Your task to perform on an android device: check data usage Image 0: 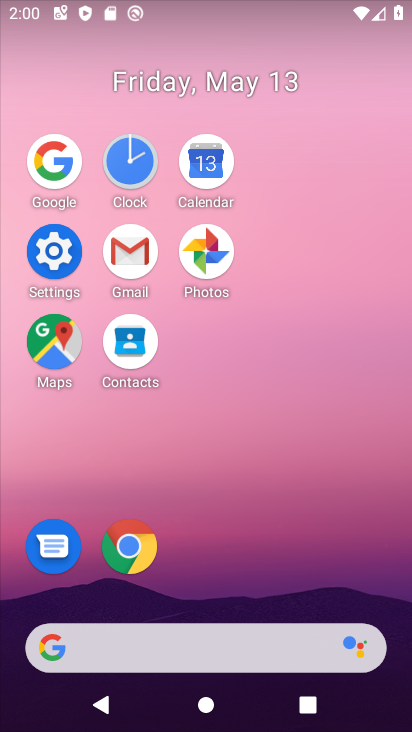
Step 0: click (136, 542)
Your task to perform on an android device: check data usage Image 1: 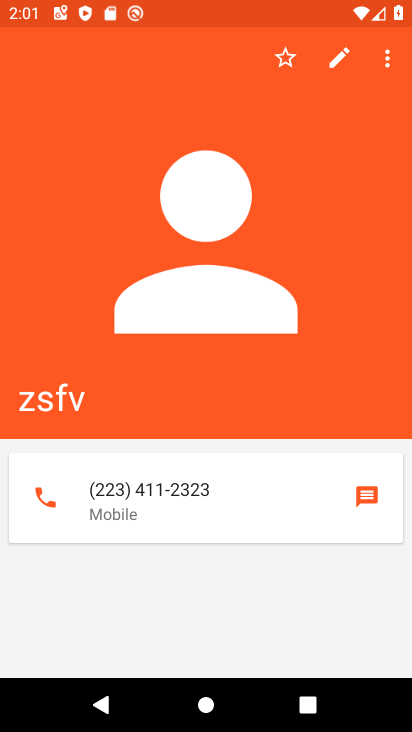
Step 1: press home button
Your task to perform on an android device: check data usage Image 2: 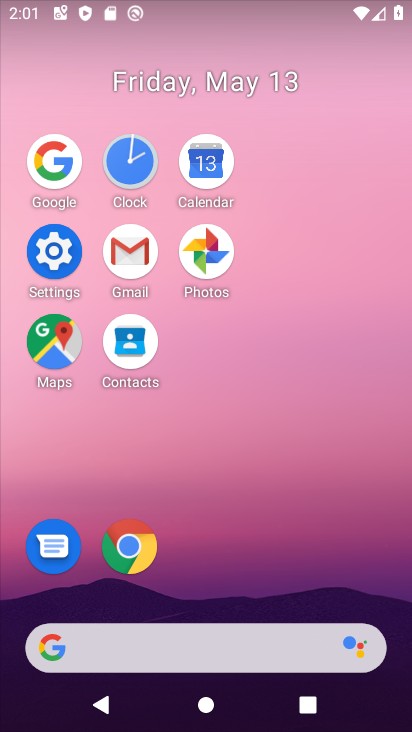
Step 2: click (40, 245)
Your task to perform on an android device: check data usage Image 3: 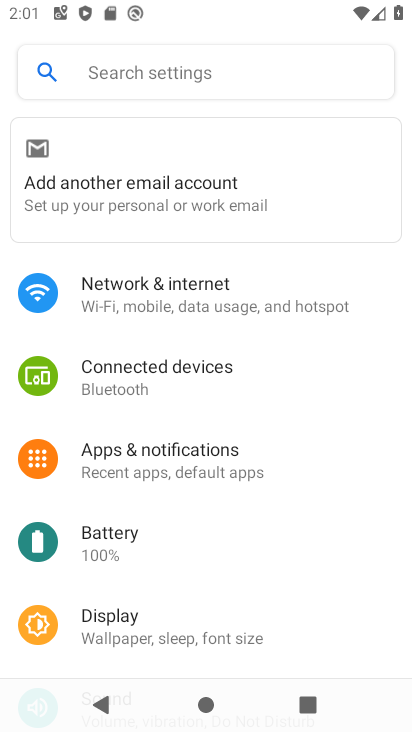
Step 3: click (238, 296)
Your task to perform on an android device: check data usage Image 4: 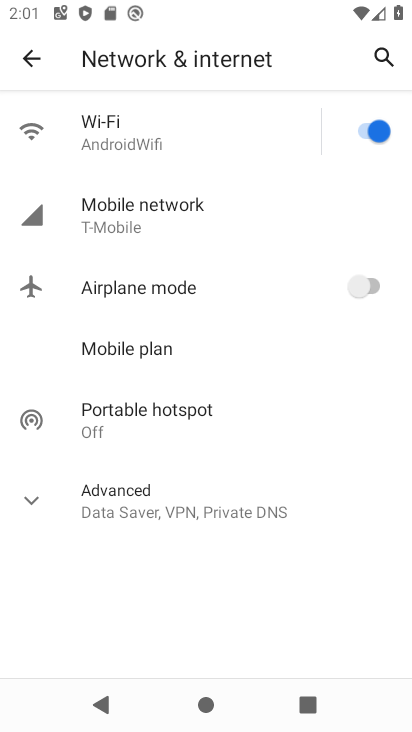
Step 4: click (197, 240)
Your task to perform on an android device: check data usage Image 5: 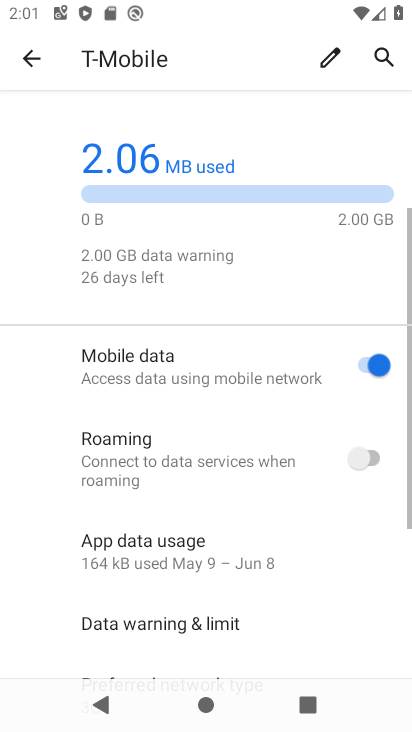
Step 5: task complete